Your task to perform on an android device: set the timer Image 0: 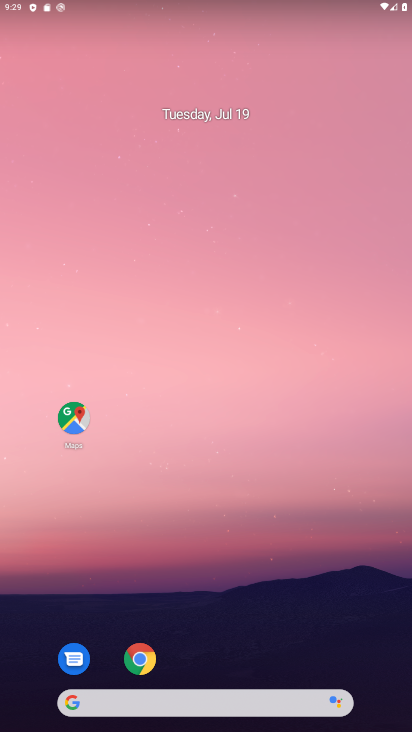
Step 0: drag from (197, 626) to (270, 94)
Your task to perform on an android device: set the timer Image 1: 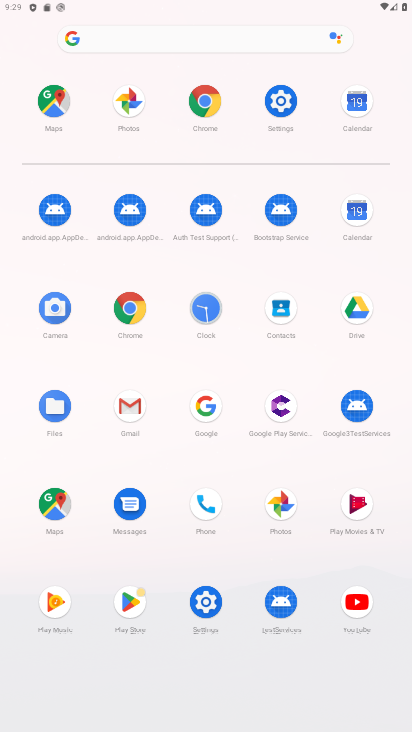
Step 1: click (203, 312)
Your task to perform on an android device: set the timer Image 2: 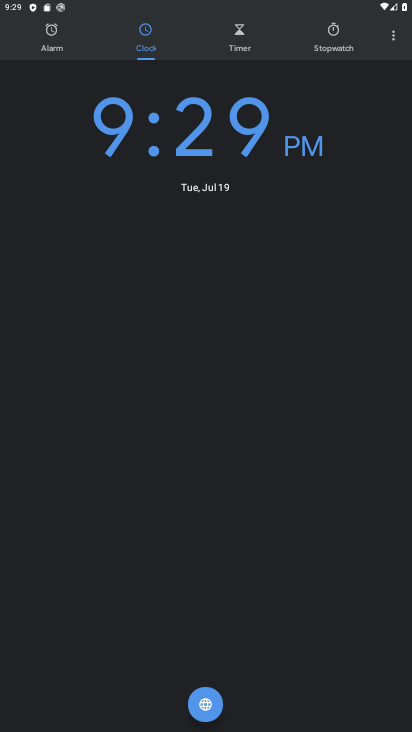
Step 2: click (242, 39)
Your task to perform on an android device: set the timer Image 3: 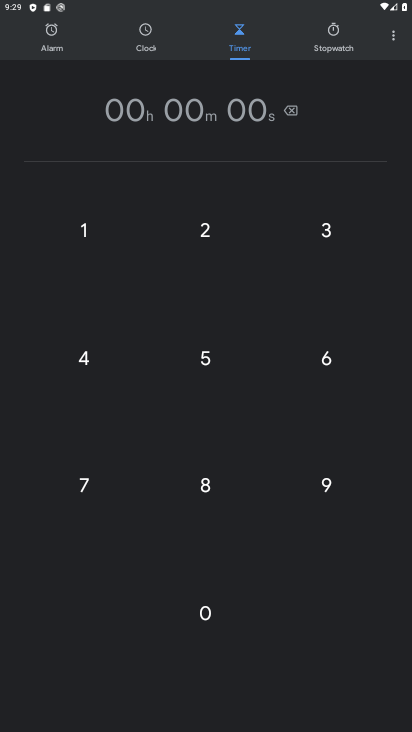
Step 3: click (201, 235)
Your task to perform on an android device: set the timer Image 4: 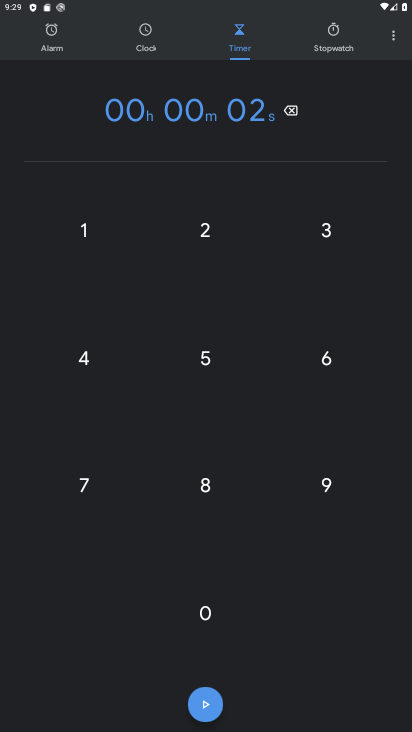
Step 4: click (321, 237)
Your task to perform on an android device: set the timer Image 5: 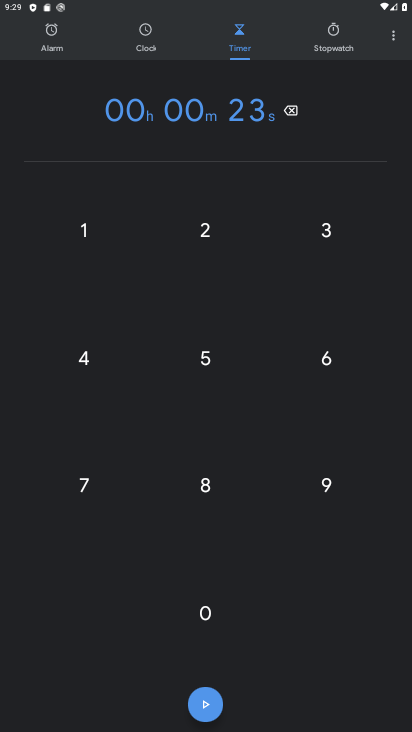
Step 5: click (235, 336)
Your task to perform on an android device: set the timer Image 6: 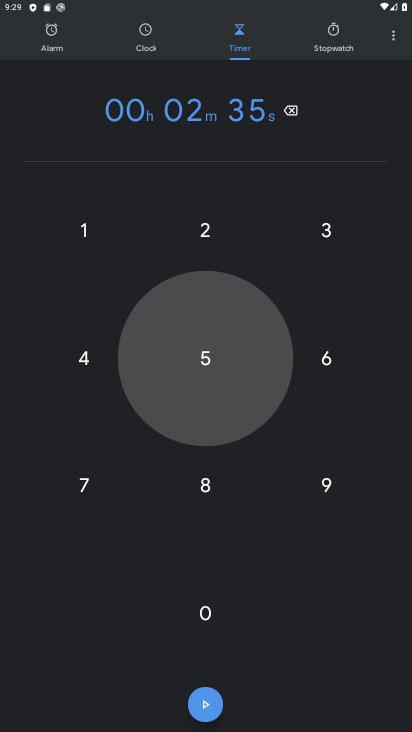
Step 6: click (209, 350)
Your task to perform on an android device: set the timer Image 7: 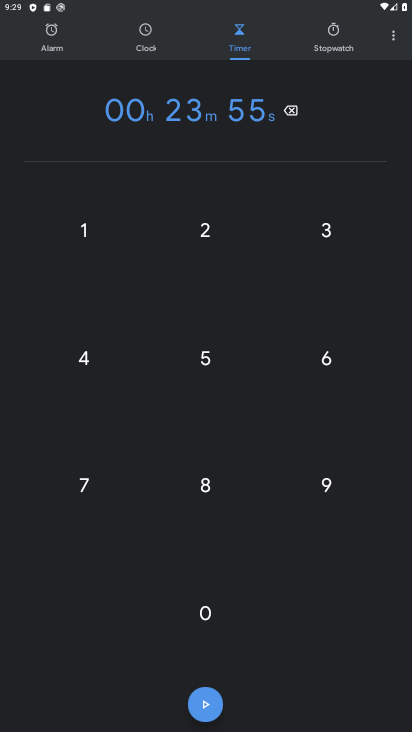
Step 7: click (200, 709)
Your task to perform on an android device: set the timer Image 8: 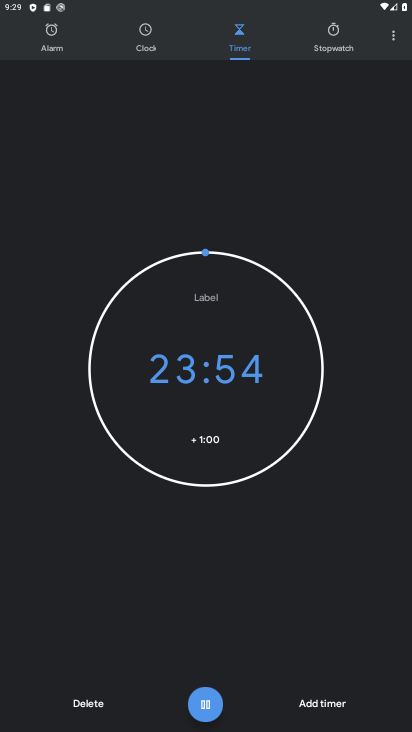
Step 8: task complete